Your task to perform on an android device: Go to eBay Image 0: 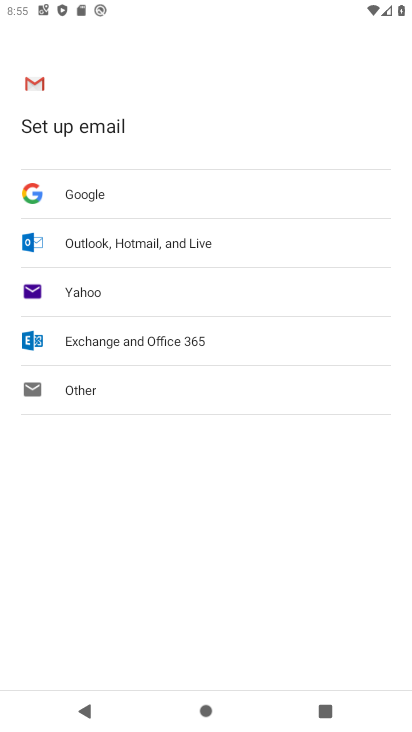
Step 0: press home button
Your task to perform on an android device: Go to eBay Image 1: 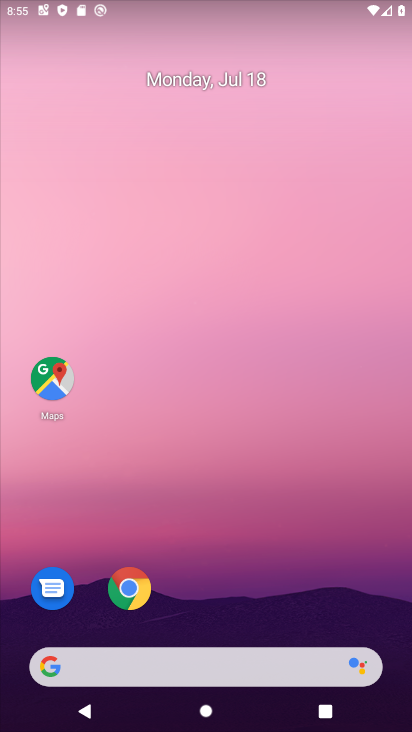
Step 1: click (130, 587)
Your task to perform on an android device: Go to eBay Image 2: 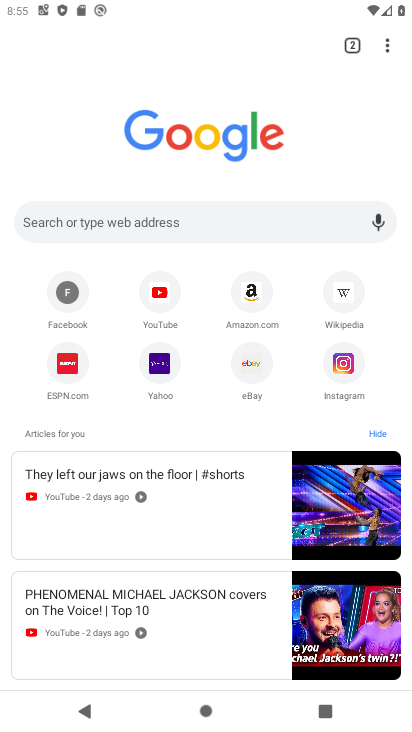
Step 2: click (250, 370)
Your task to perform on an android device: Go to eBay Image 3: 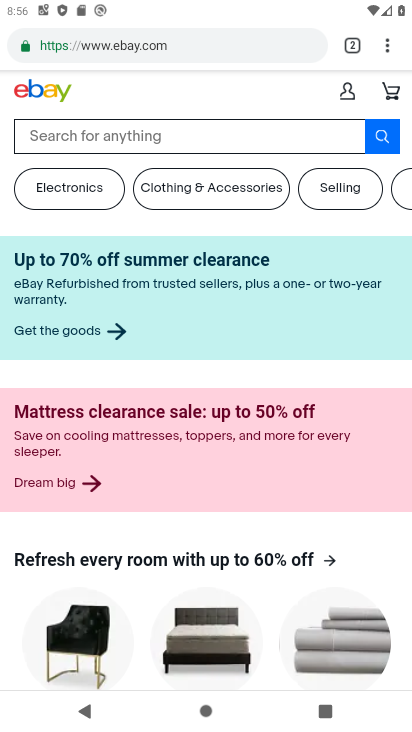
Step 3: task complete